Your task to perform on an android device: toggle priority inbox in the gmail app Image 0: 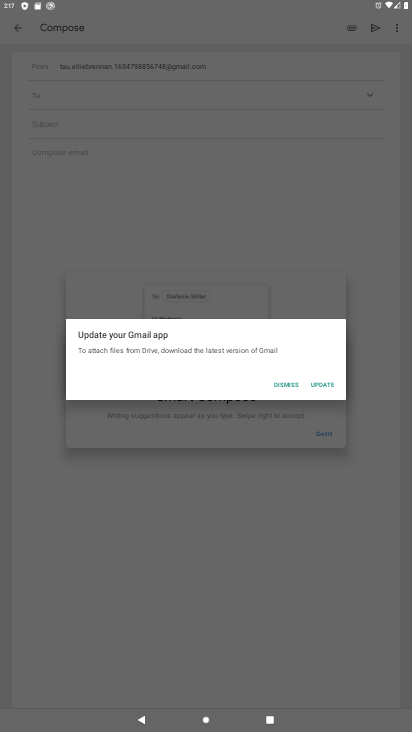
Step 0: press home button
Your task to perform on an android device: toggle priority inbox in the gmail app Image 1: 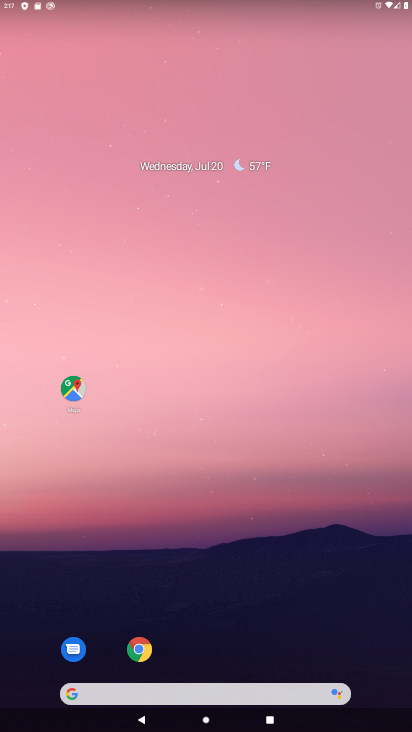
Step 1: drag from (208, 673) to (174, 228)
Your task to perform on an android device: toggle priority inbox in the gmail app Image 2: 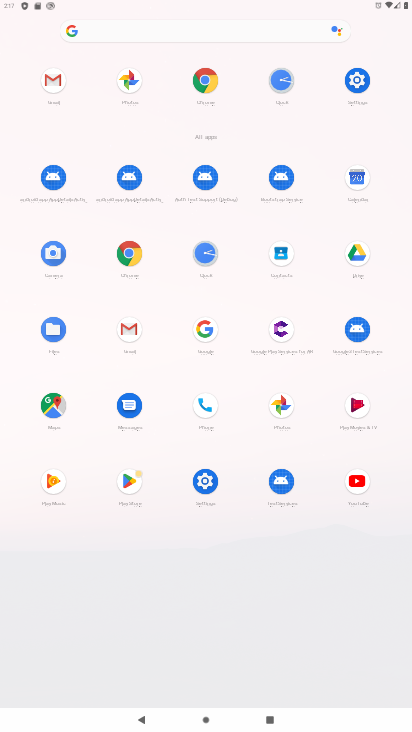
Step 2: click (51, 73)
Your task to perform on an android device: toggle priority inbox in the gmail app Image 3: 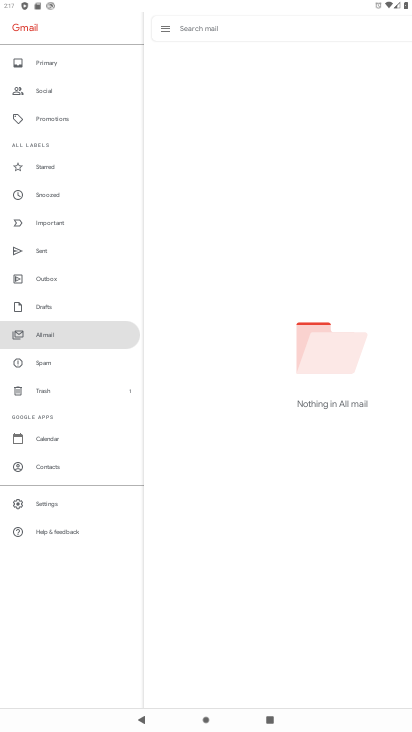
Step 3: click (50, 514)
Your task to perform on an android device: toggle priority inbox in the gmail app Image 4: 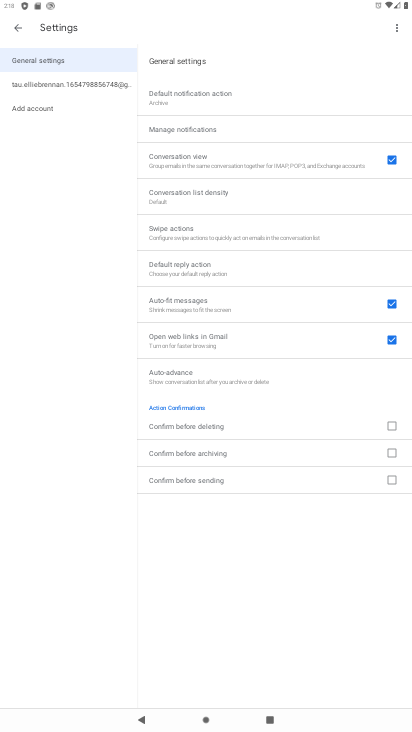
Step 4: click (31, 37)
Your task to perform on an android device: toggle priority inbox in the gmail app Image 5: 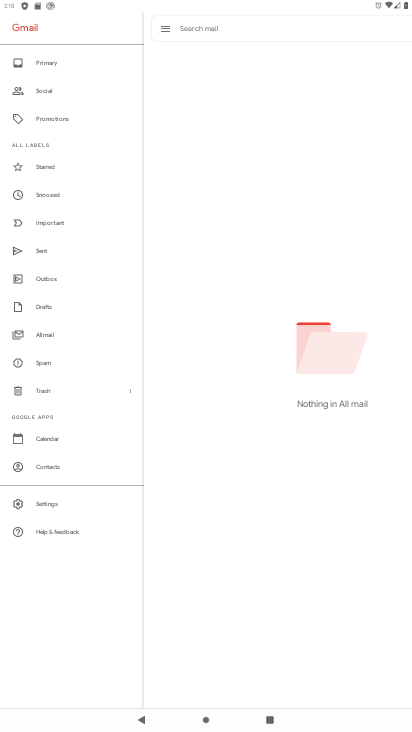
Step 5: click (80, 501)
Your task to perform on an android device: toggle priority inbox in the gmail app Image 6: 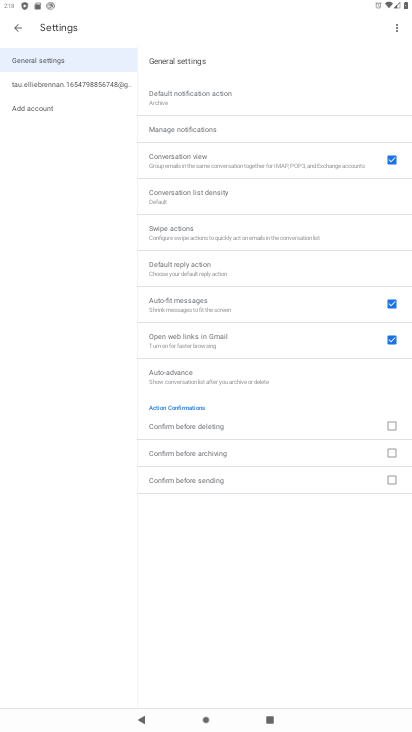
Step 6: click (101, 81)
Your task to perform on an android device: toggle priority inbox in the gmail app Image 7: 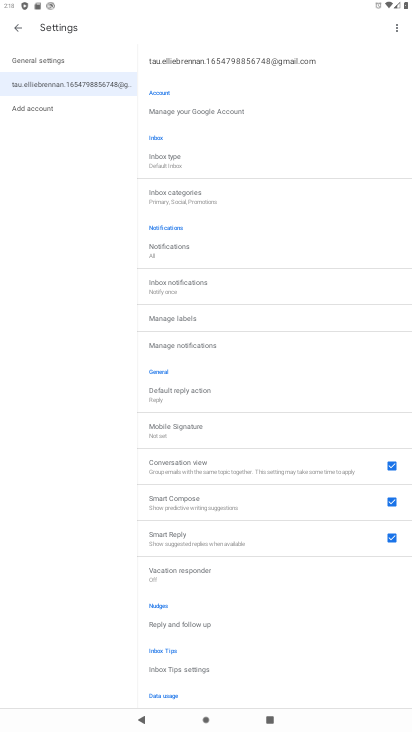
Step 7: click (192, 159)
Your task to perform on an android device: toggle priority inbox in the gmail app Image 8: 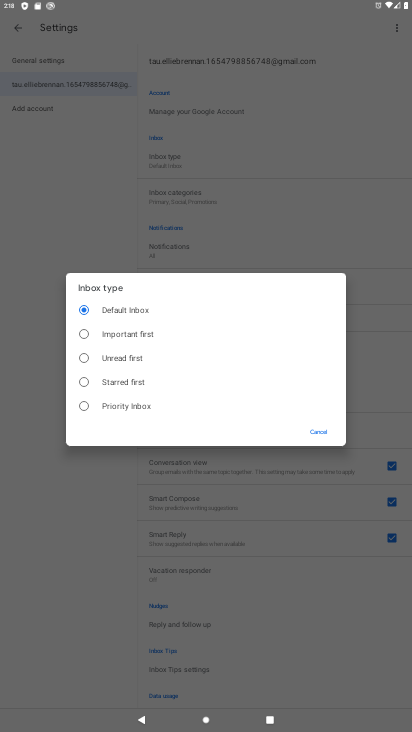
Step 8: click (123, 414)
Your task to perform on an android device: toggle priority inbox in the gmail app Image 9: 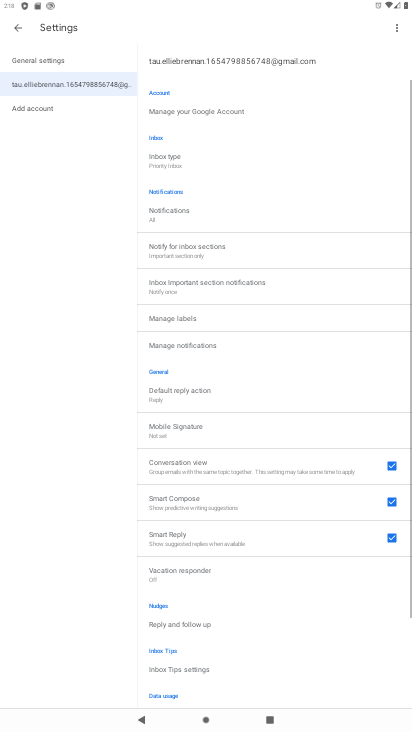
Step 9: task complete